Your task to perform on an android device: Open Yahoo.com Image 0: 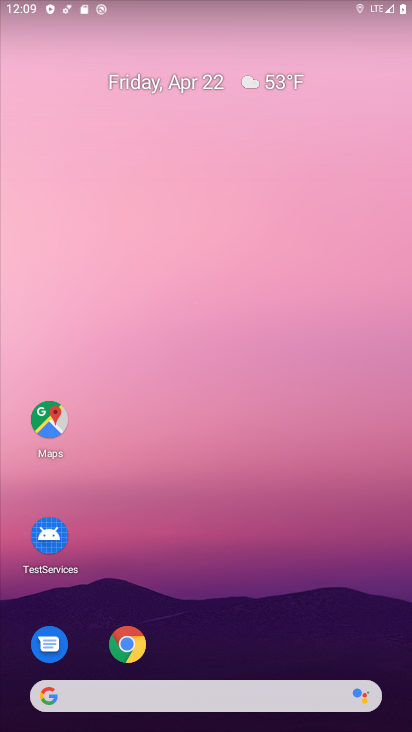
Step 0: drag from (277, 545) to (201, 0)
Your task to perform on an android device: Open Yahoo.com Image 1: 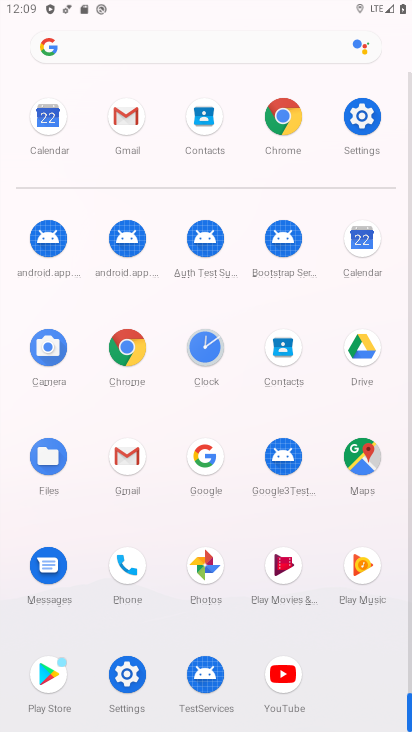
Step 1: click (131, 342)
Your task to perform on an android device: Open Yahoo.com Image 2: 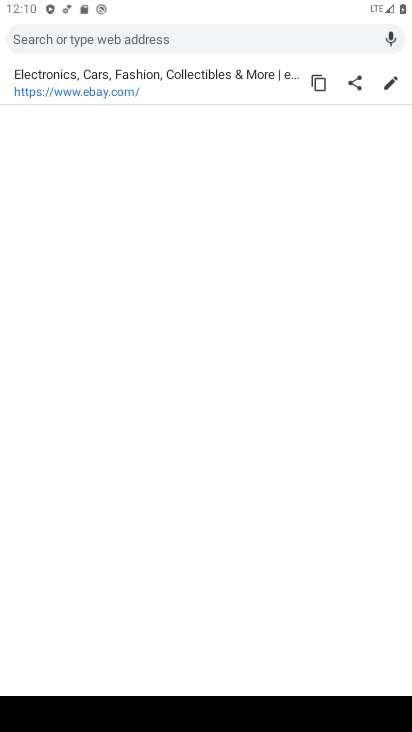
Step 2: type "yahoo.com"
Your task to perform on an android device: Open Yahoo.com Image 3: 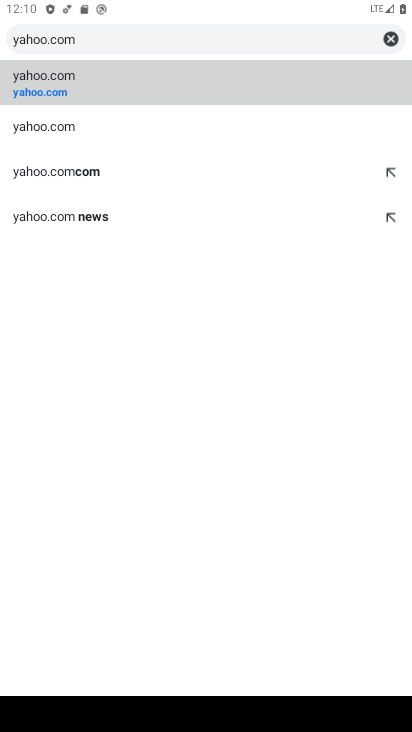
Step 3: click (40, 84)
Your task to perform on an android device: Open Yahoo.com Image 4: 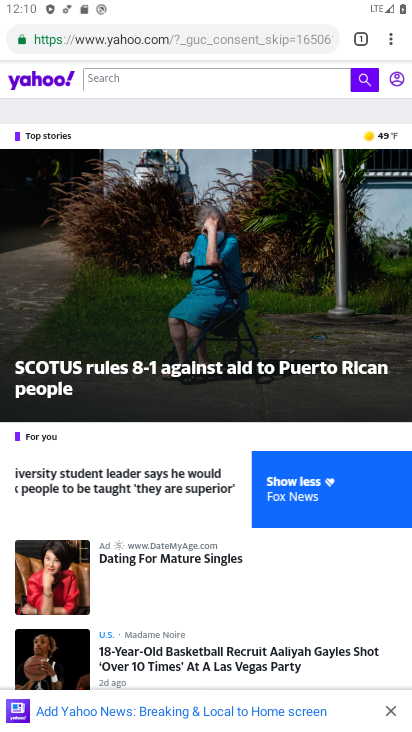
Step 4: task complete